Your task to perform on an android device: move a message to another label in the gmail app Image 0: 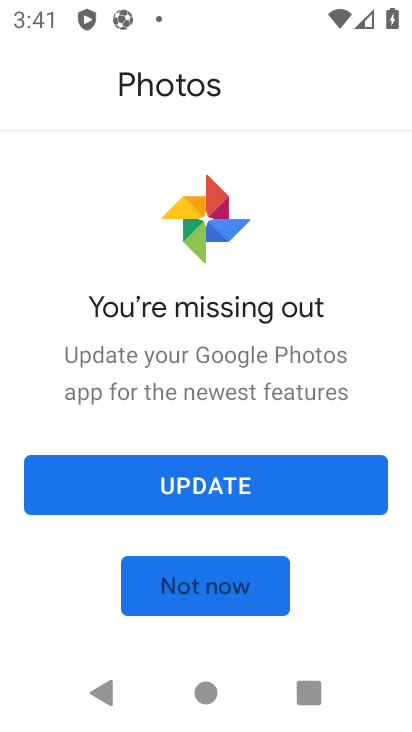
Step 0: press home button
Your task to perform on an android device: move a message to another label in the gmail app Image 1: 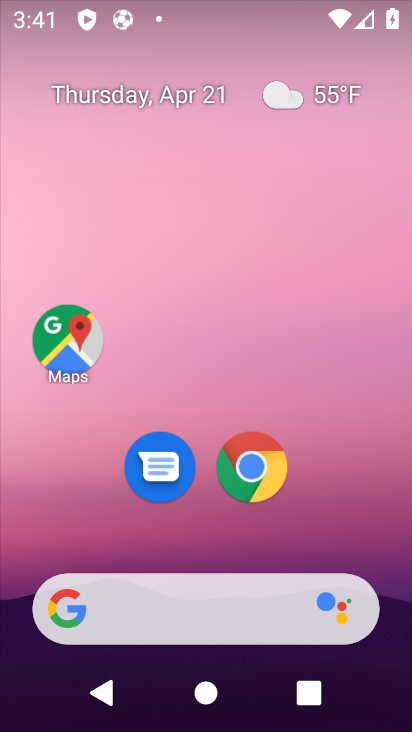
Step 1: drag from (256, 594) to (292, 199)
Your task to perform on an android device: move a message to another label in the gmail app Image 2: 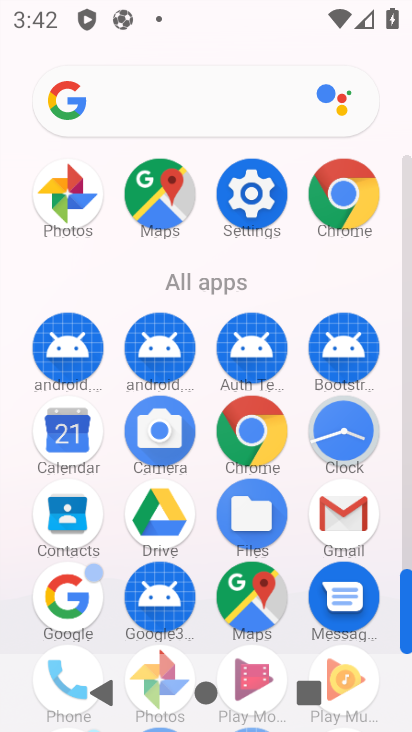
Step 2: click (347, 512)
Your task to perform on an android device: move a message to another label in the gmail app Image 3: 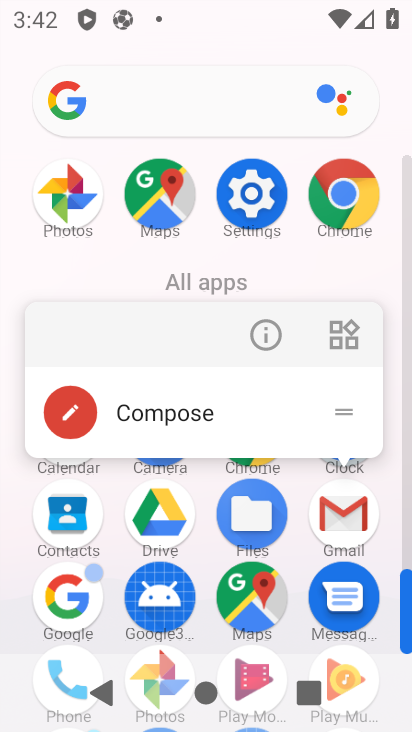
Step 3: click (347, 512)
Your task to perform on an android device: move a message to another label in the gmail app Image 4: 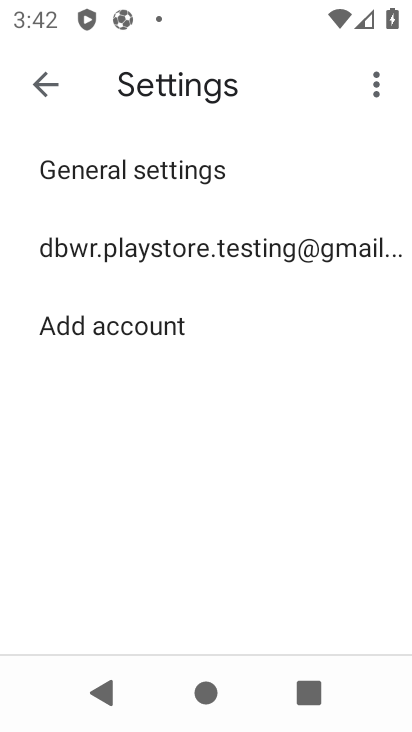
Step 4: click (347, 512)
Your task to perform on an android device: move a message to another label in the gmail app Image 5: 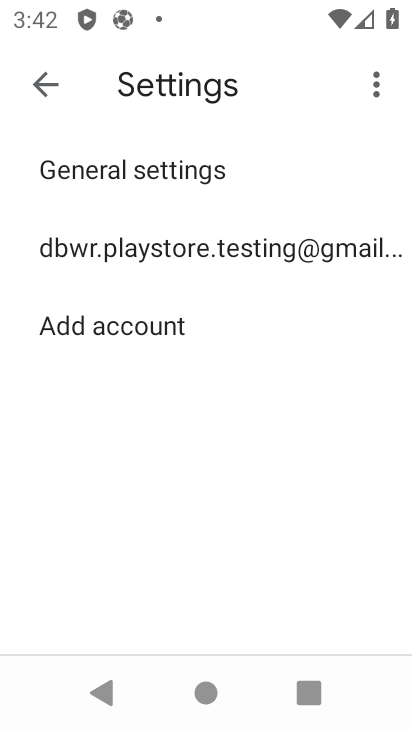
Step 5: click (35, 73)
Your task to perform on an android device: move a message to another label in the gmail app Image 6: 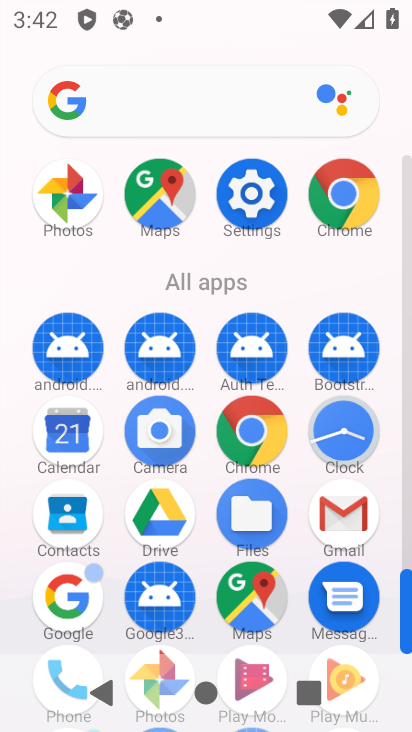
Step 6: click (357, 512)
Your task to perform on an android device: move a message to another label in the gmail app Image 7: 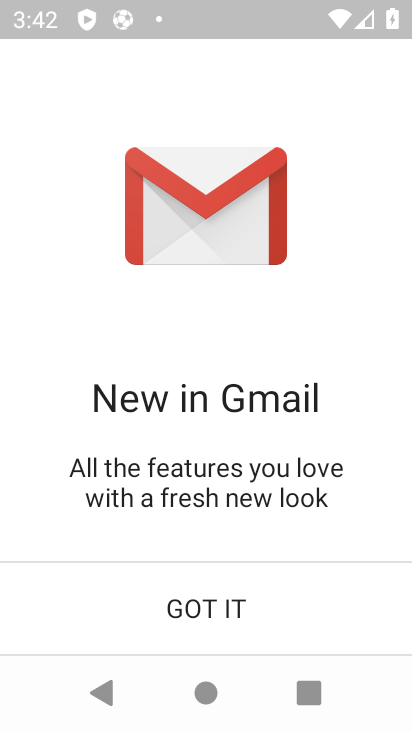
Step 7: click (347, 584)
Your task to perform on an android device: move a message to another label in the gmail app Image 8: 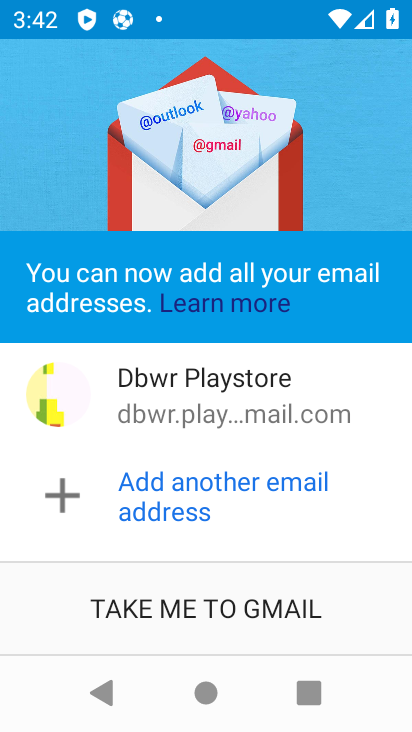
Step 8: click (340, 587)
Your task to perform on an android device: move a message to another label in the gmail app Image 9: 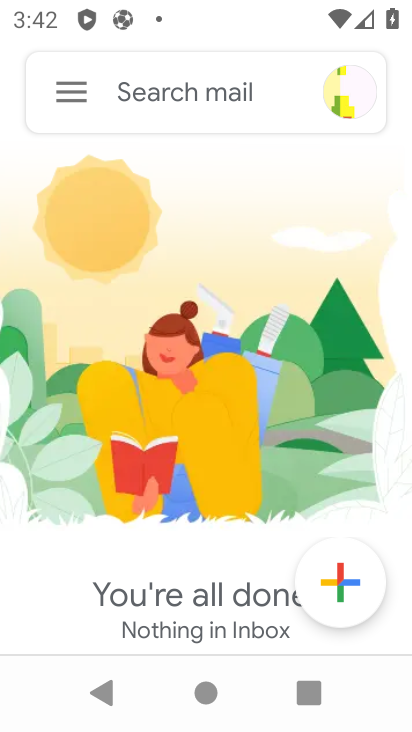
Step 9: task complete